Your task to perform on an android device: check android version Image 0: 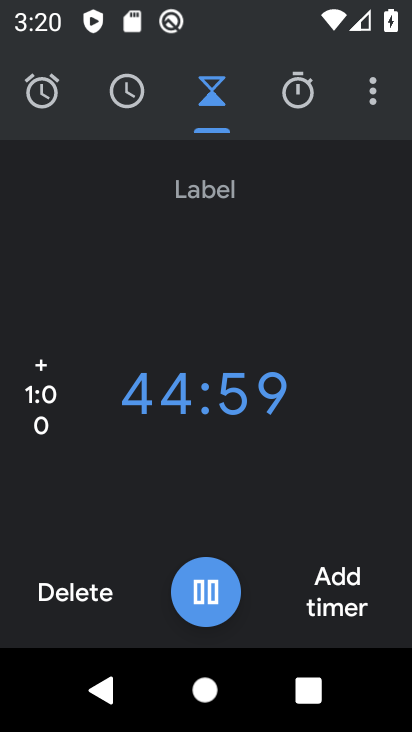
Step 0: press home button
Your task to perform on an android device: check android version Image 1: 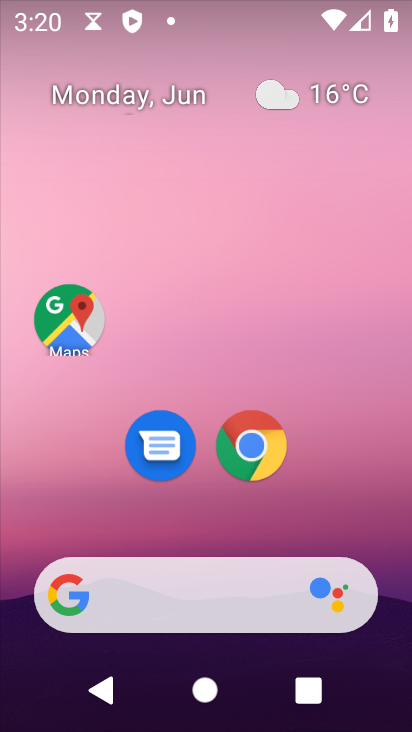
Step 1: drag from (63, 507) to (177, 1)
Your task to perform on an android device: check android version Image 2: 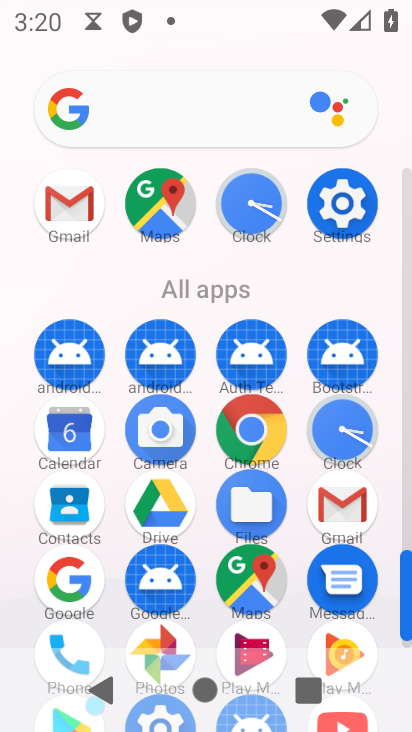
Step 2: drag from (151, 634) to (226, 284)
Your task to perform on an android device: check android version Image 3: 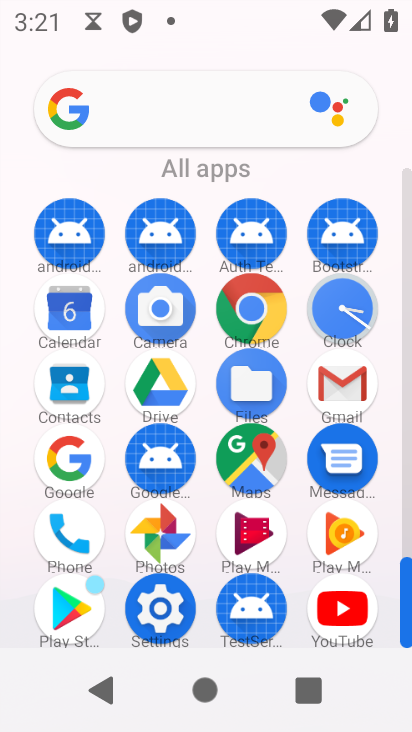
Step 3: click (154, 612)
Your task to perform on an android device: check android version Image 4: 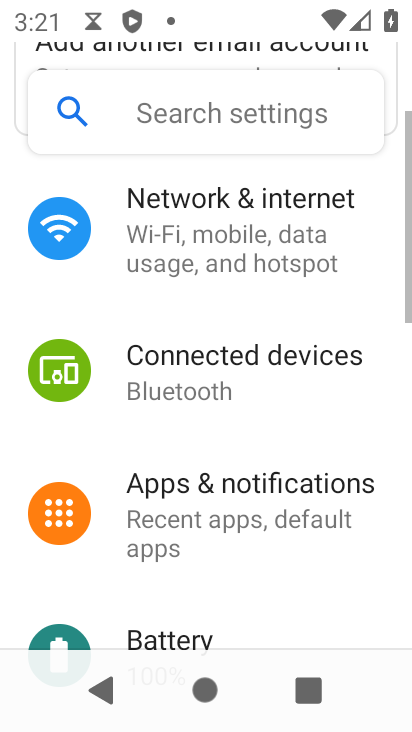
Step 4: drag from (156, 597) to (281, 11)
Your task to perform on an android device: check android version Image 5: 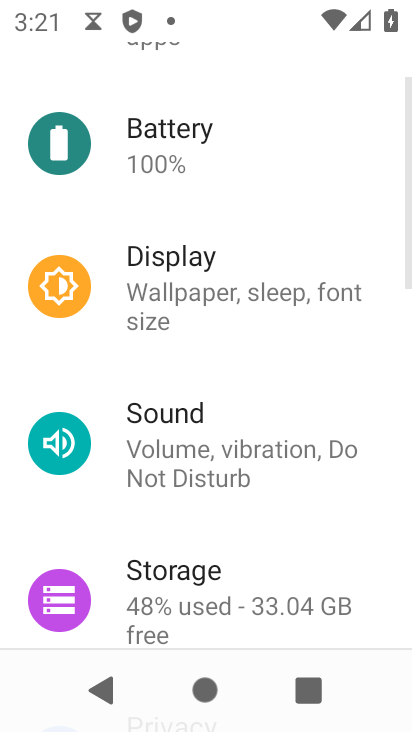
Step 5: drag from (143, 632) to (341, 178)
Your task to perform on an android device: check android version Image 6: 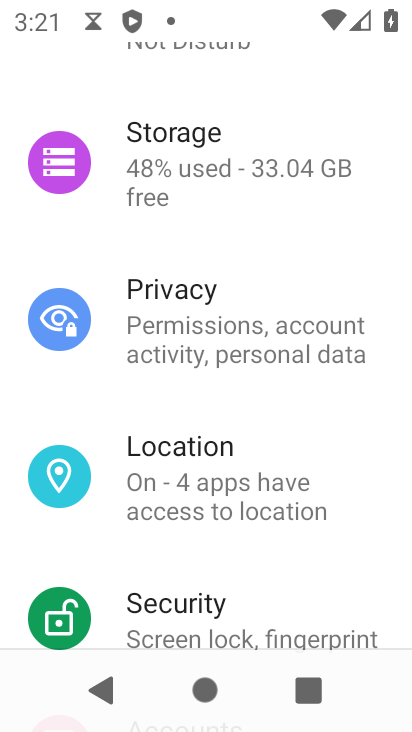
Step 6: drag from (223, 590) to (276, 113)
Your task to perform on an android device: check android version Image 7: 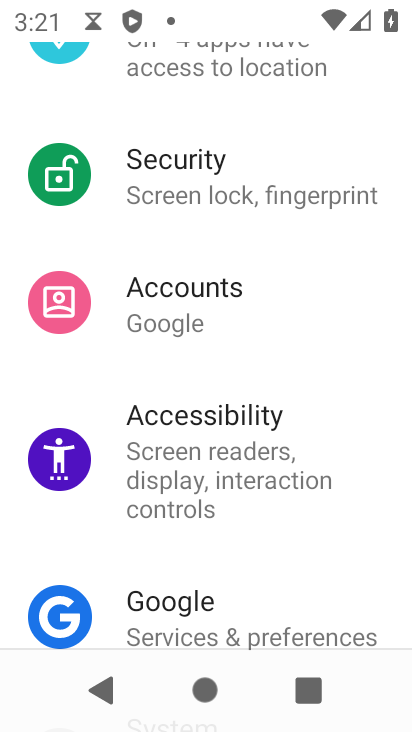
Step 7: drag from (168, 621) to (251, 173)
Your task to perform on an android device: check android version Image 8: 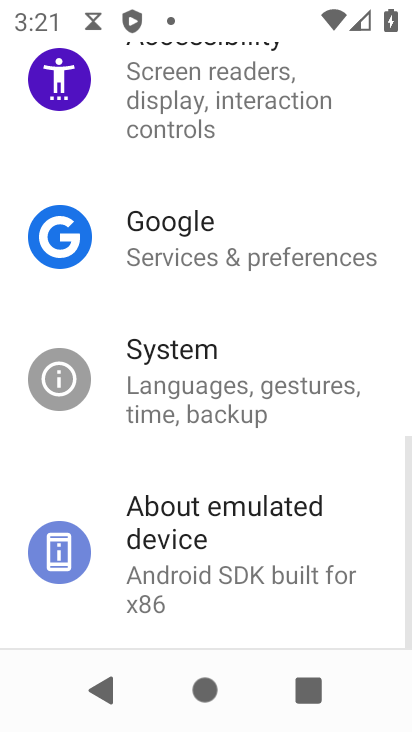
Step 8: drag from (198, 616) to (276, 289)
Your task to perform on an android device: check android version Image 9: 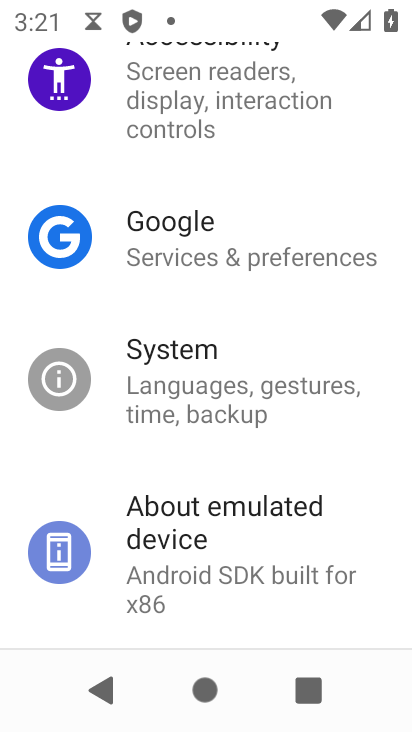
Step 9: click (192, 512)
Your task to perform on an android device: check android version Image 10: 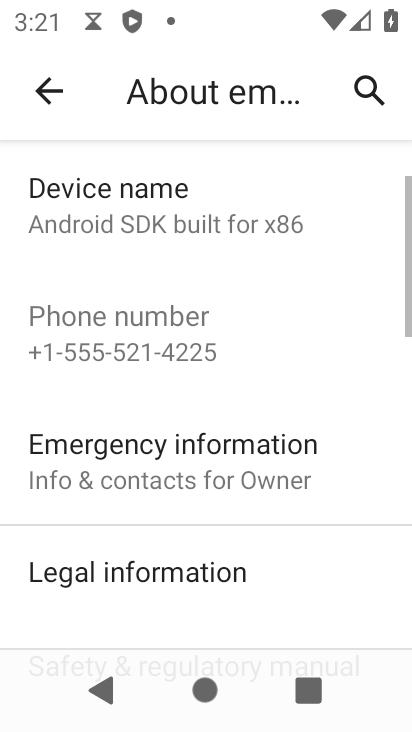
Step 10: drag from (127, 546) to (263, 97)
Your task to perform on an android device: check android version Image 11: 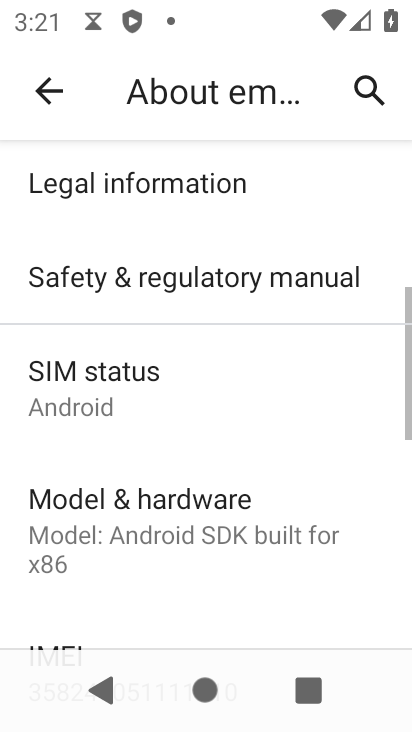
Step 11: drag from (194, 601) to (287, 232)
Your task to perform on an android device: check android version Image 12: 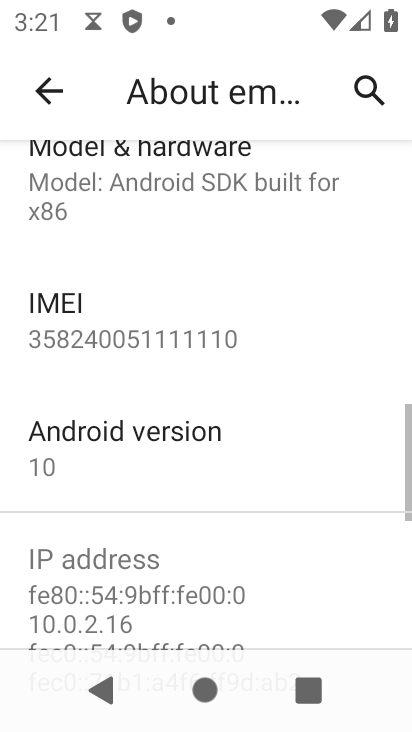
Step 12: click (177, 457)
Your task to perform on an android device: check android version Image 13: 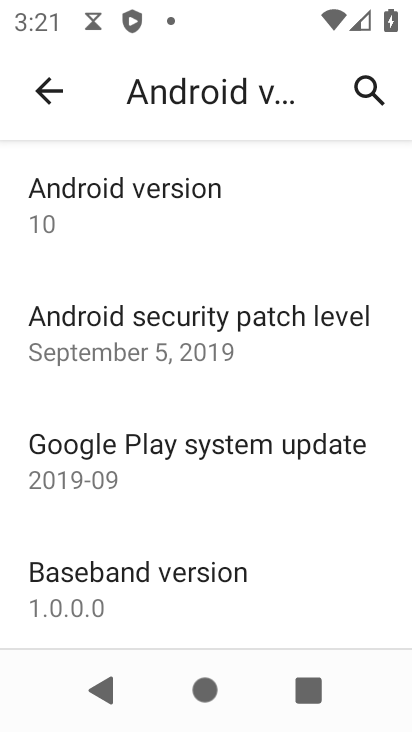
Step 13: task complete